Your task to perform on an android device: check the backup settings in the google photos Image 0: 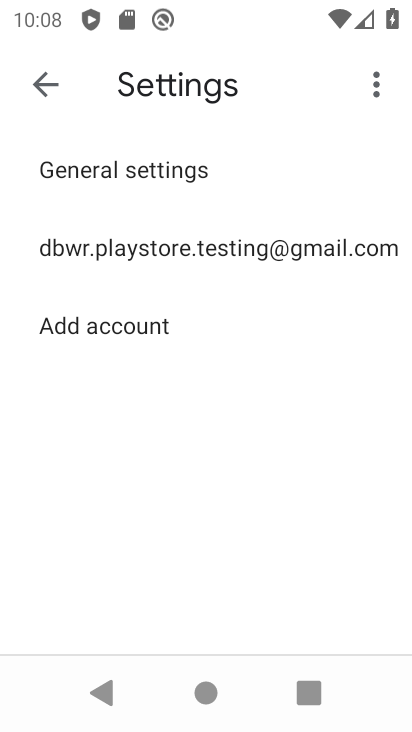
Step 0: press home button
Your task to perform on an android device: check the backup settings in the google photos Image 1: 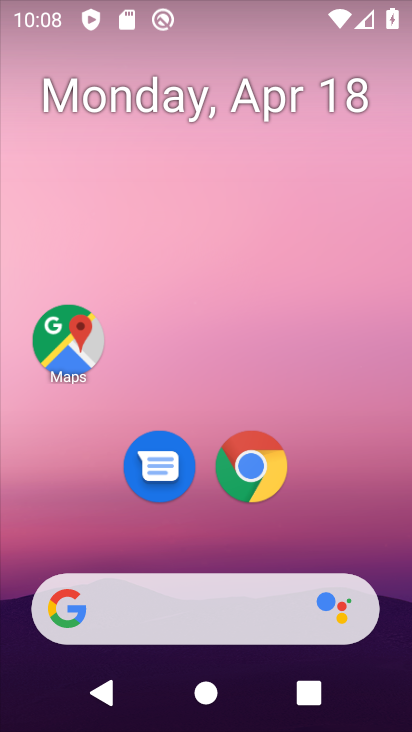
Step 1: drag from (203, 557) to (226, 217)
Your task to perform on an android device: check the backup settings in the google photos Image 2: 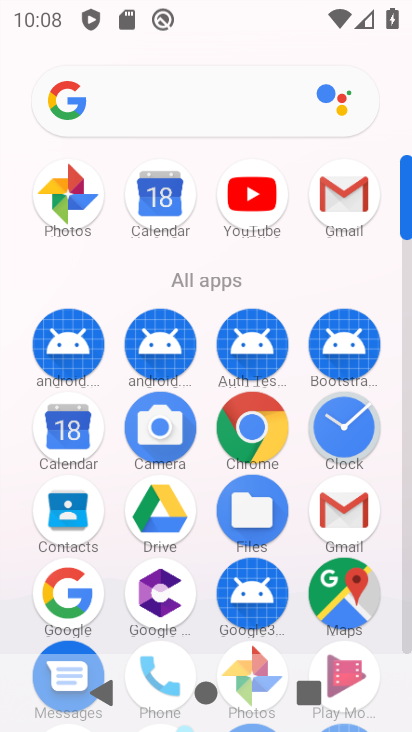
Step 2: drag from (271, 524) to (304, 219)
Your task to perform on an android device: check the backup settings in the google photos Image 3: 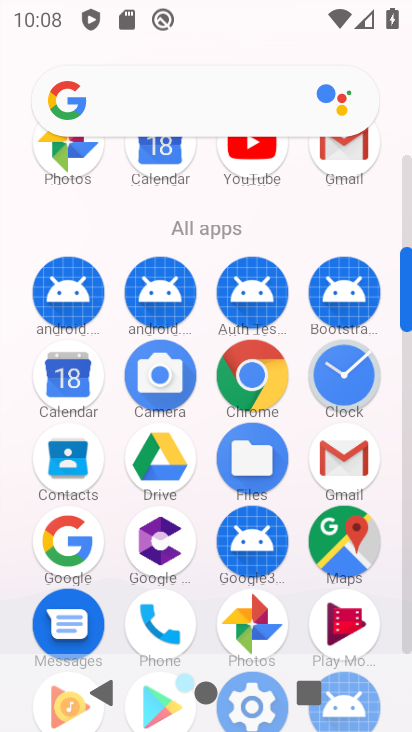
Step 3: click (259, 618)
Your task to perform on an android device: check the backup settings in the google photos Image 4: 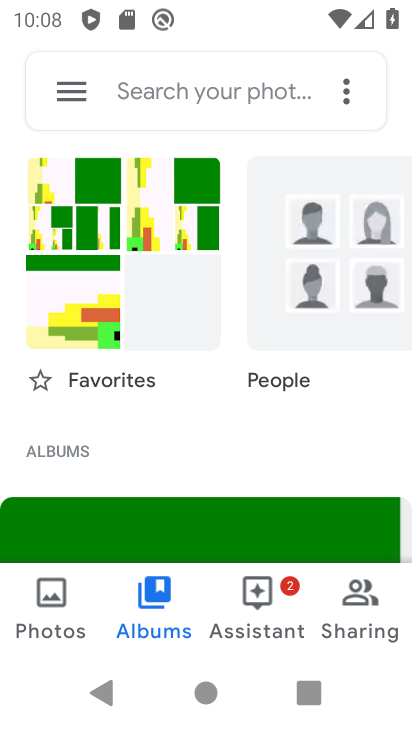
Step 4: click (67, 89)
Your task to perform on an android device: check the backup settings in the google photos Image 5: 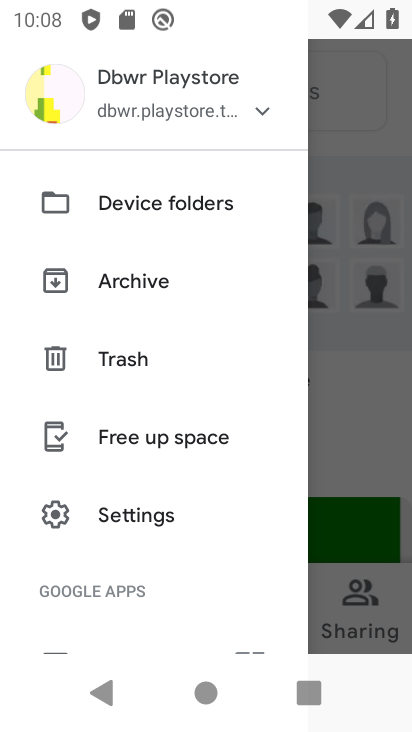
Step 5: click (128, 517)
Your task to perform on an android device: check the backup settings in the google photos Image 6: 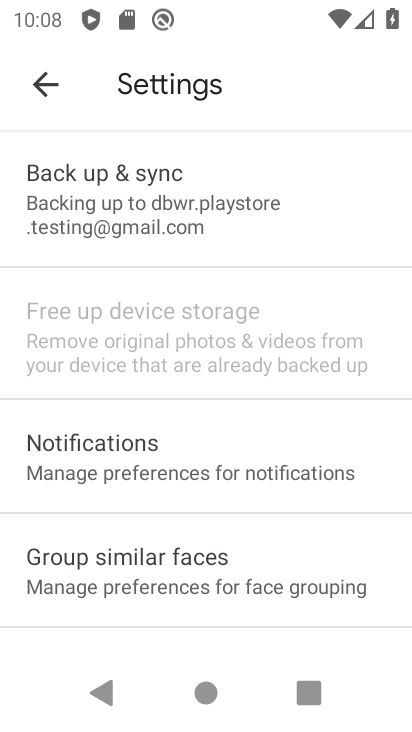
Step 6: click (217, 179)
Your task to perform on an android device: check the backup settings in the google photos Image 7: 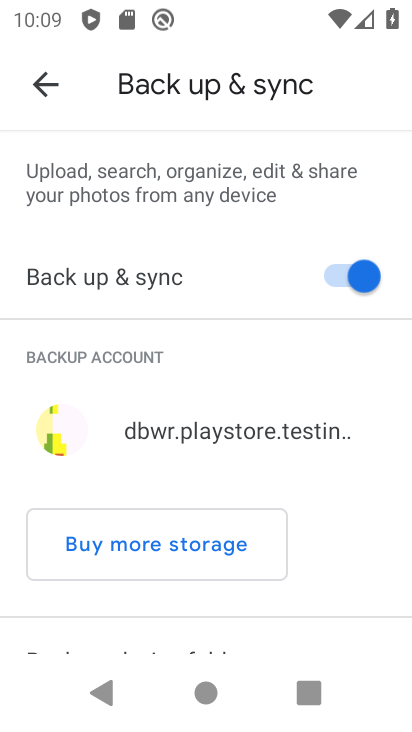
Step 7: task complete